Your task to perform on an android device: find photos in the google photos app Image 0: 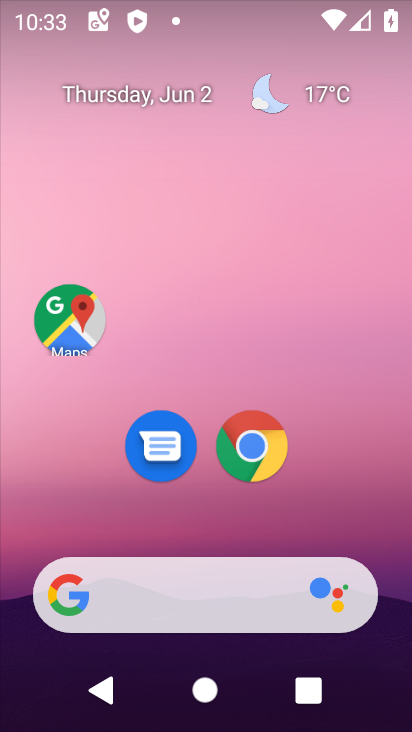
Step 0: drag from (377, 527) to (377, 210)
Your task to perform on an android device: find photos in the google photos app Image 1: 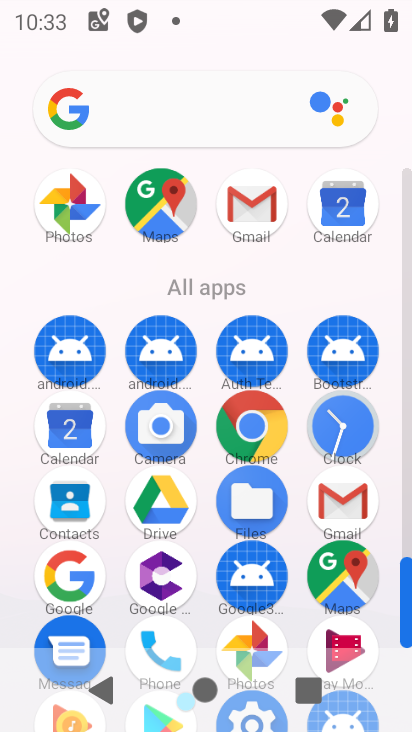
Step 1: drag from (299, 454) to (309, 173)
Your task to perform on an android device: find photos in the google photos app Image 2: 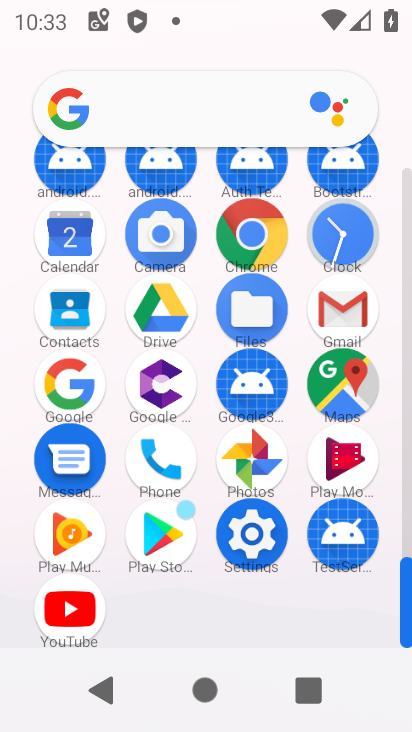
Step 2: click (251, 461)
Your task to perform on an android device: find photos in the google photos app Image 3: 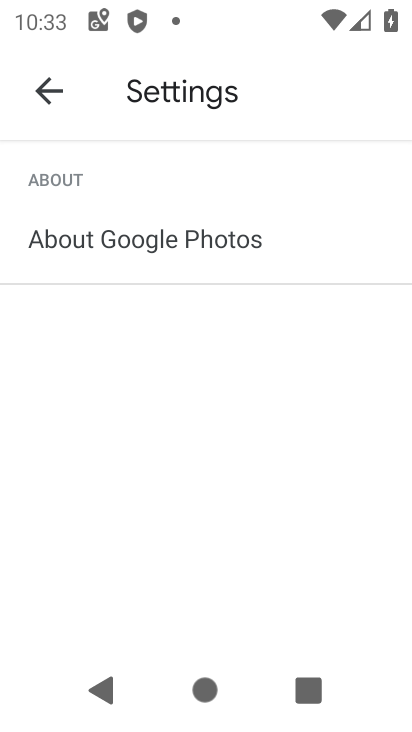
Step 3: press back button
Your task to perform on an android device: find photos in the google photos app Image 4: 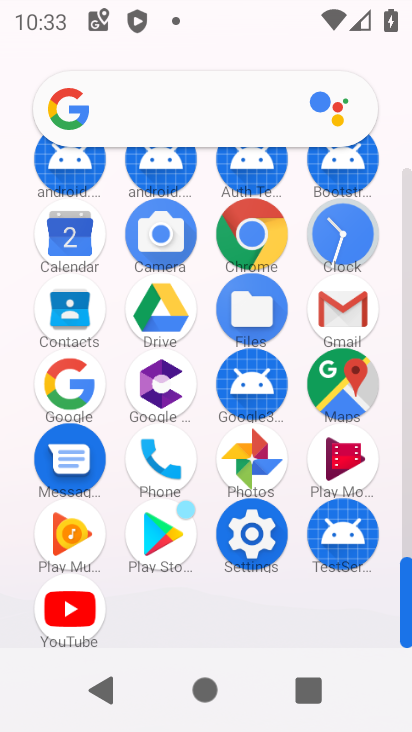
Step 4: click (259, 463)
Your task to perform on an android device: find photos in the google photos app Image 5: 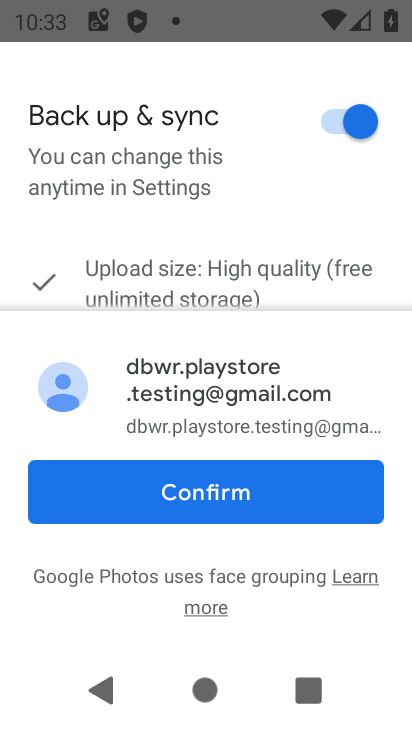
Step 5: click (218, 501)
Your task to perform on an android device: find photos in the google photos app Image 6: 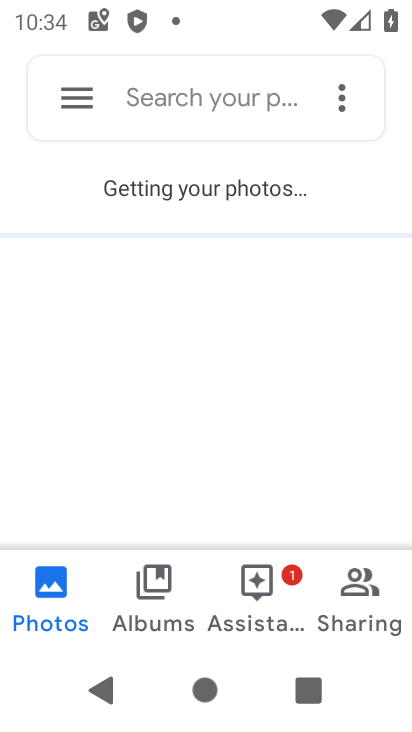
Step 6: task complete